Your task to perform on an android device: change the clock display to show seconds Image 0: 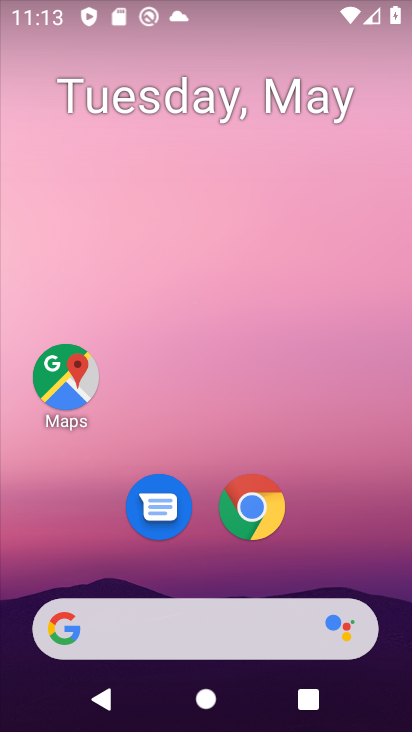
Step 0: drag from (260, 612) to (190, 2)
Your task to perform on an android device: change the clock display to show seconds Image 1: 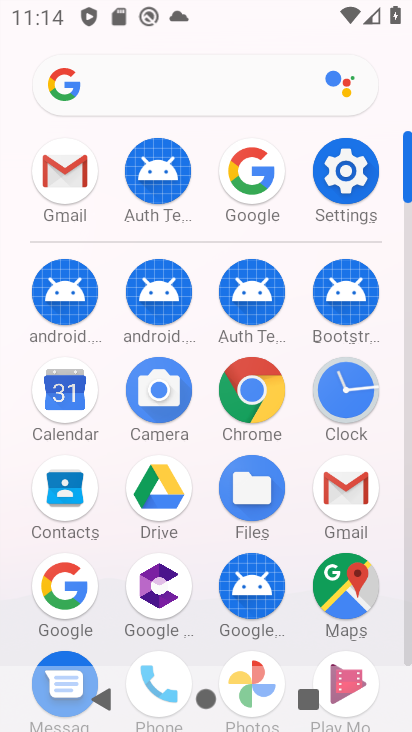
Step 1: click (340, 378)
Your task to perform on an android device: change the clock display to show seconds Image 2: 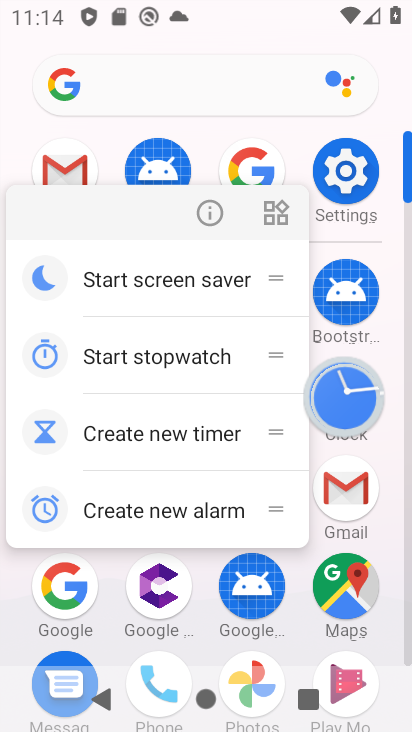
Step 2: click (338, 385)
Your task to perform on an android device: change the clock display to show seconds Image 3: 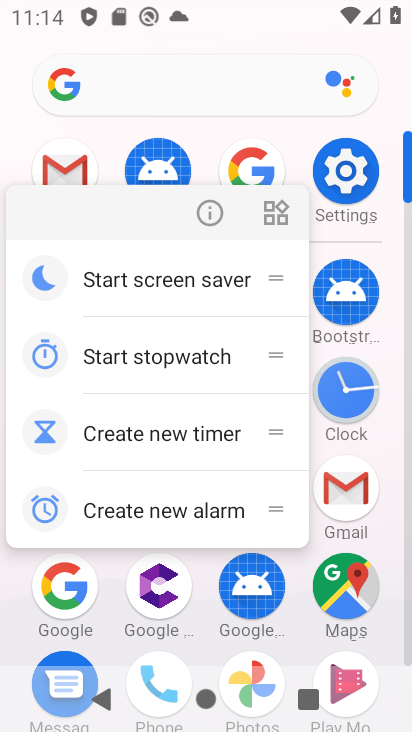
Step 3: click (339, 384)
Your task to perform on an android device: change the clock display to show seconds Image 4: 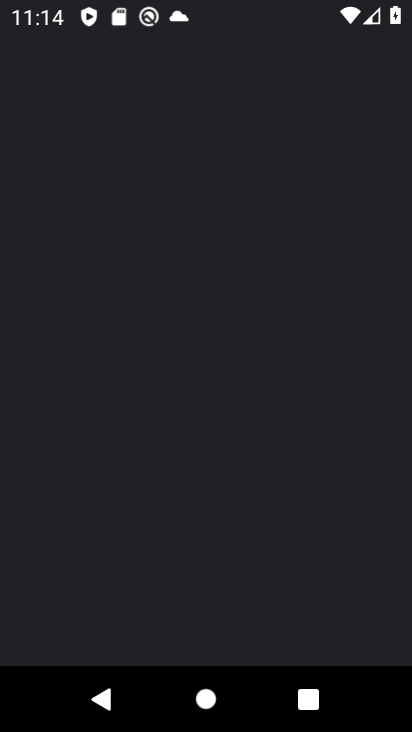
Step 4: click (353, 377)
Your task to perform on an android device: change the clock display to show seconds Image 5: 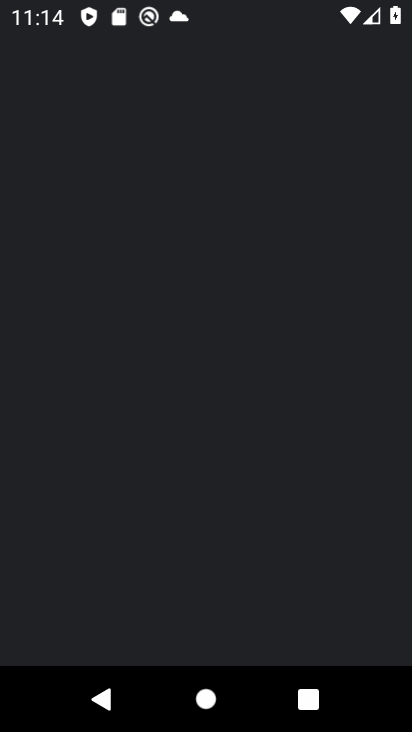
Step 5: click (353, 377)
Your task to perform on an android device: change the clock display to show seconds Image 6: 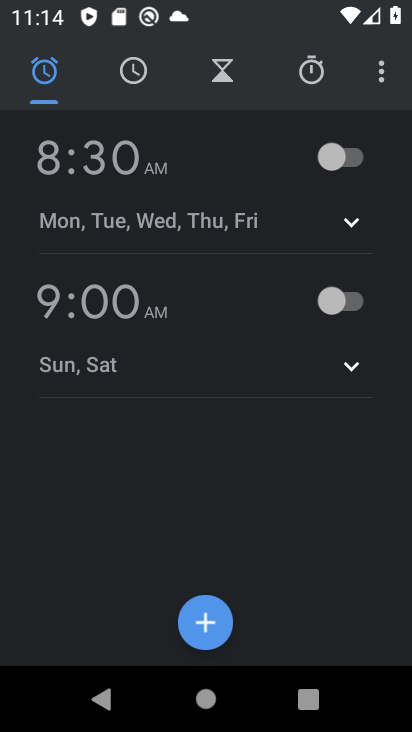
Step 6: click (373, 79)
Your task to perform on an android device: change the clock display to show seconds Image 7: 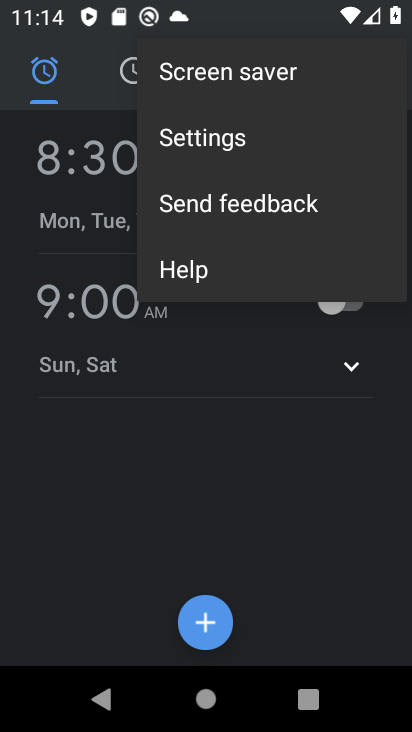
Step 7: click (192, 137)
Your task to perform on an android device: change the clock display to show seconds Image 8: 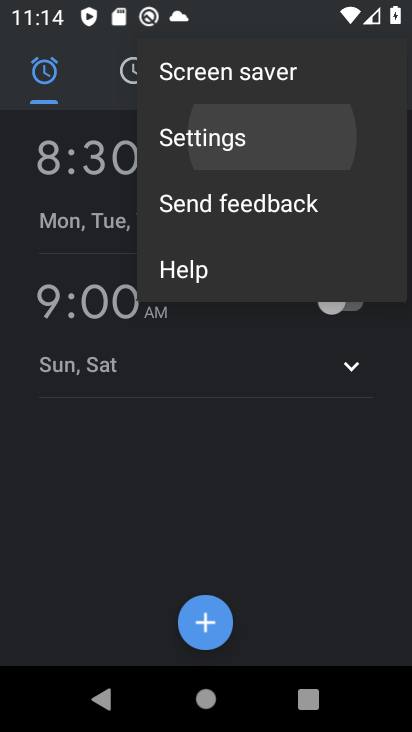
Step 8: click (193, 132)
Your task to perform on an android device: change the clock display to show seconds Image 9: 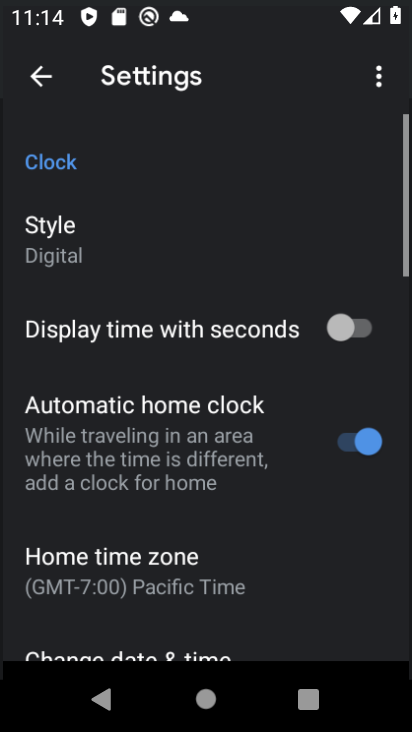
Step 9: click (196, 130)
Your task to perform on an android device: change the clock display to show seconds Image 10: 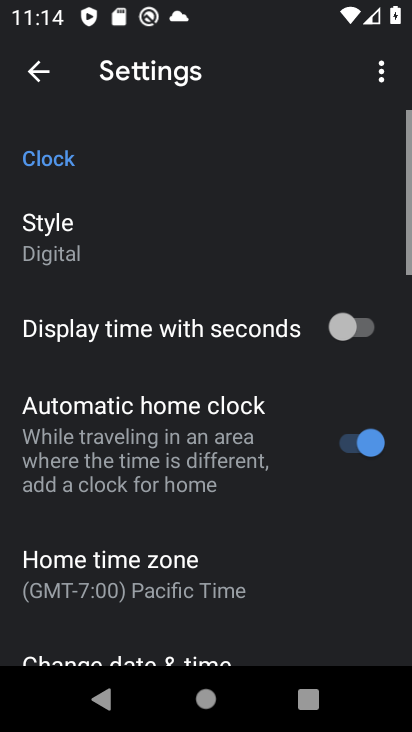
Step 10: click (196, 130)
Your task to perform on an android device: change the clock display to show seconds Image 11: 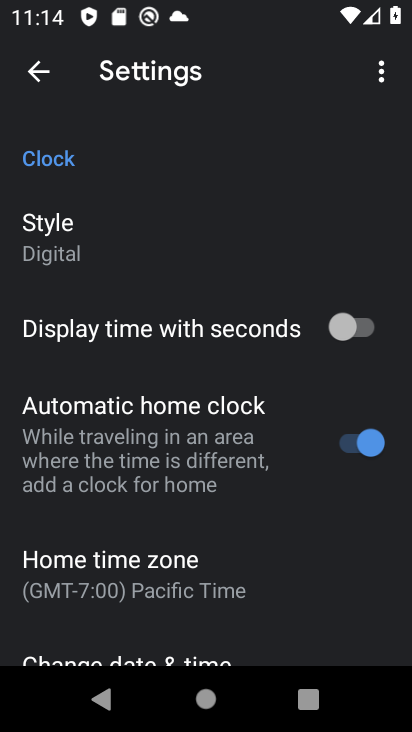
Step 11: click (340, 341)
Your task to perform on an android device: change the clock display to show seconds Image 12: 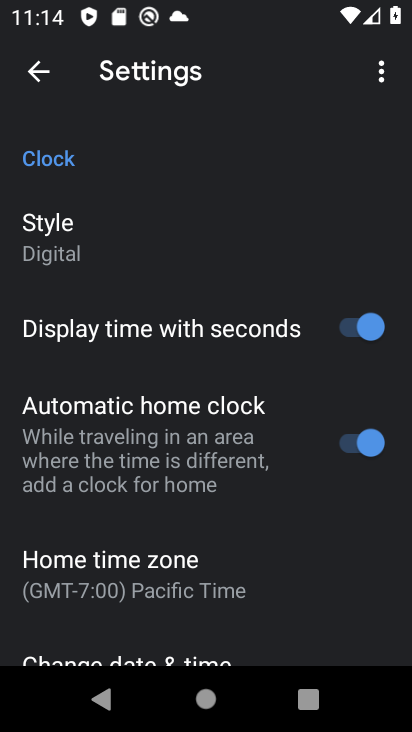
Step 12: task complete